Your task to perform on an android device: set the stopwatch Image 0: 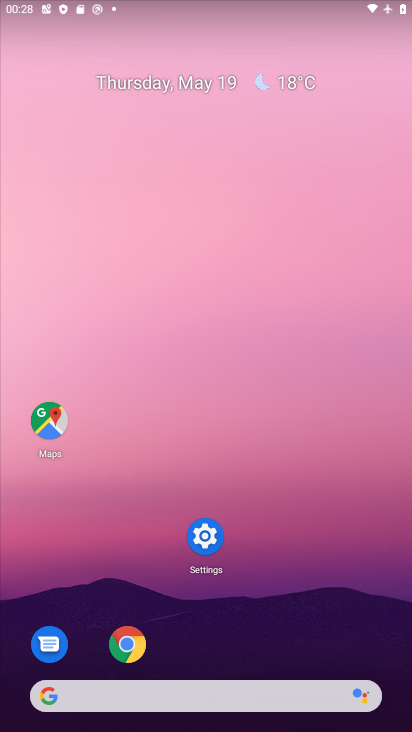
Step 0: drag from (332, 597) to (253, 76)
Your task to perform on an android device: set the stopwatch Image 1: 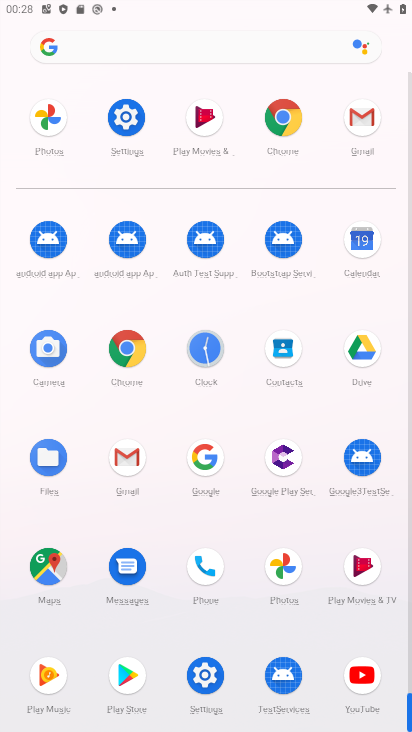
Step 1: click (204, 345)
Your task to perform on an android device: set the stopwatch Image 2: 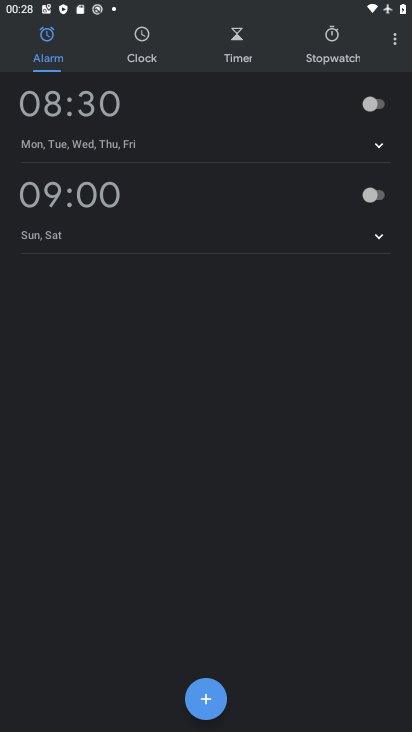
Step 2: click (346, 55)
Your task to perform on an android device: set the stopwatch Image 3: 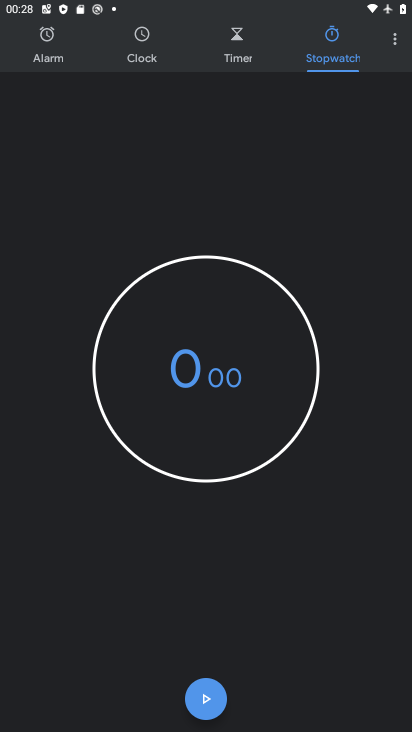
Step 3: click (200, 696)
Your task to perform on an android device: set the stopwatch Image 4: 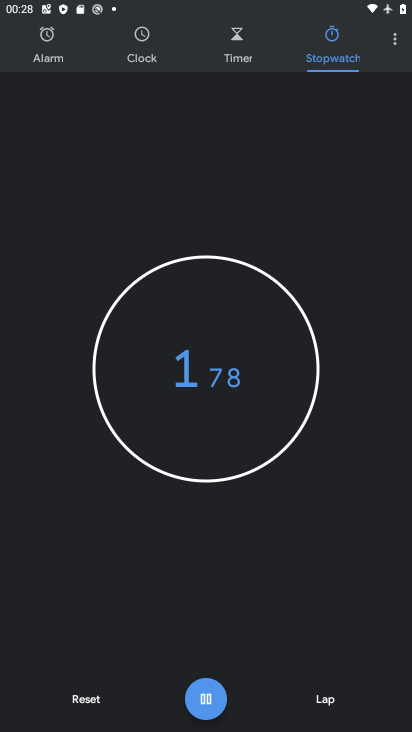
Step 4: click (200, 697)
Your task to perform on an android device: set the stopwatch Image 5: 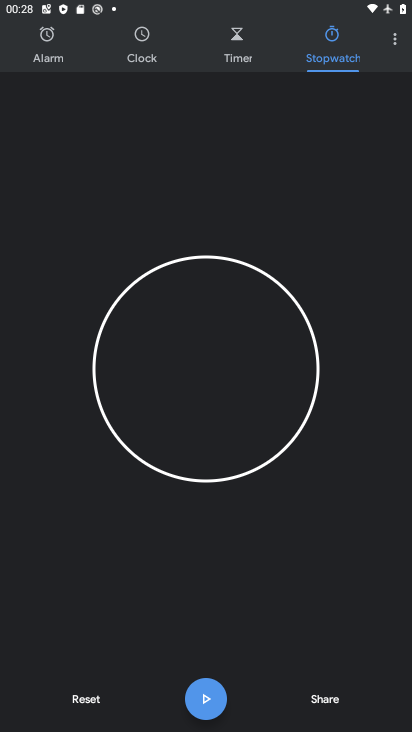
Step 5: task complete